Your task to perform on an android device: uninstall "VLC for Android" Image 0: 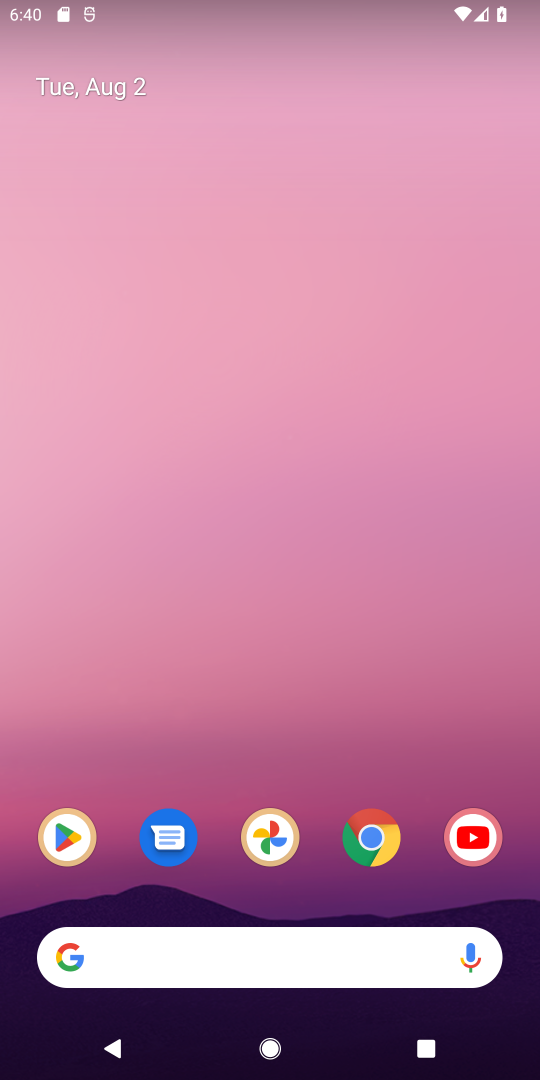
Step 0: click (63, 837)
Your task to perform on an android device: uninstall "VLC for Android" Image 1: 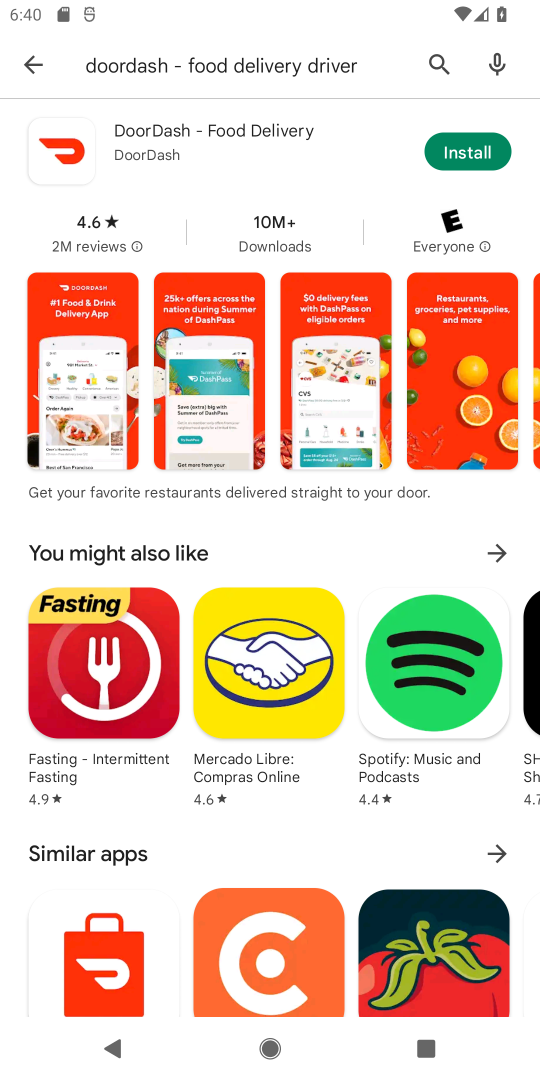
Step 1: click (438, 68)
Your task to perform on an android device: uninstall "VLC for Android" Image 2: 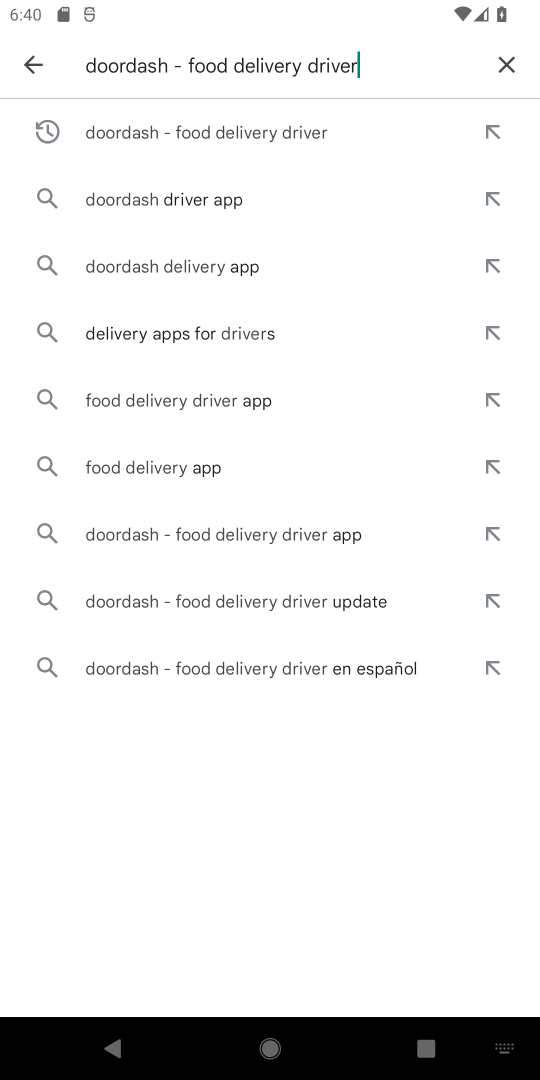
Step 2: click (502, 62)
Your task to perform on an android device: uninstall "VLC for Android" Image 3: 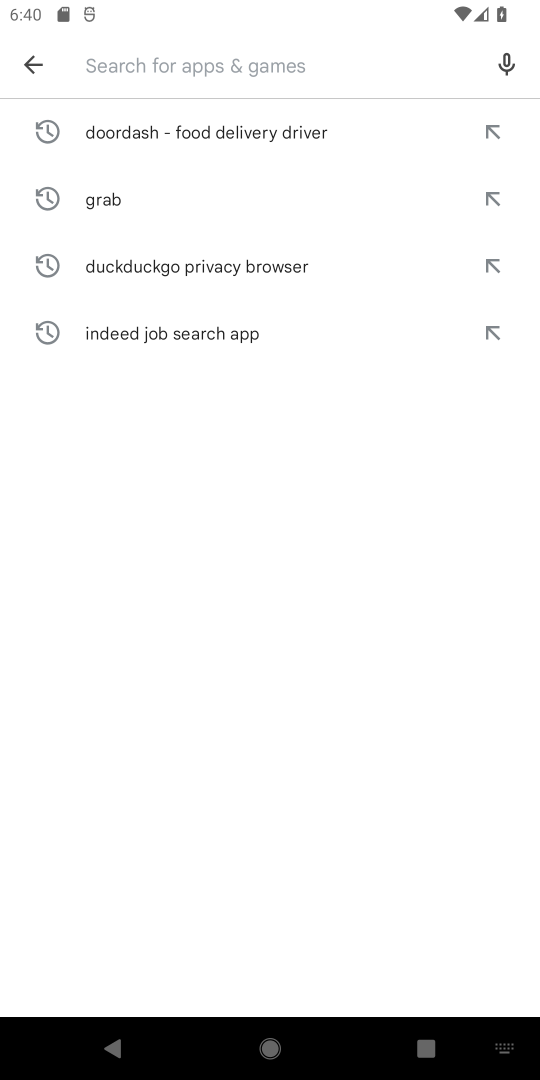
Step 3: type "VLC for Android"
Your task to perform on an android device: uninstall "VLC for Android" Image 4: 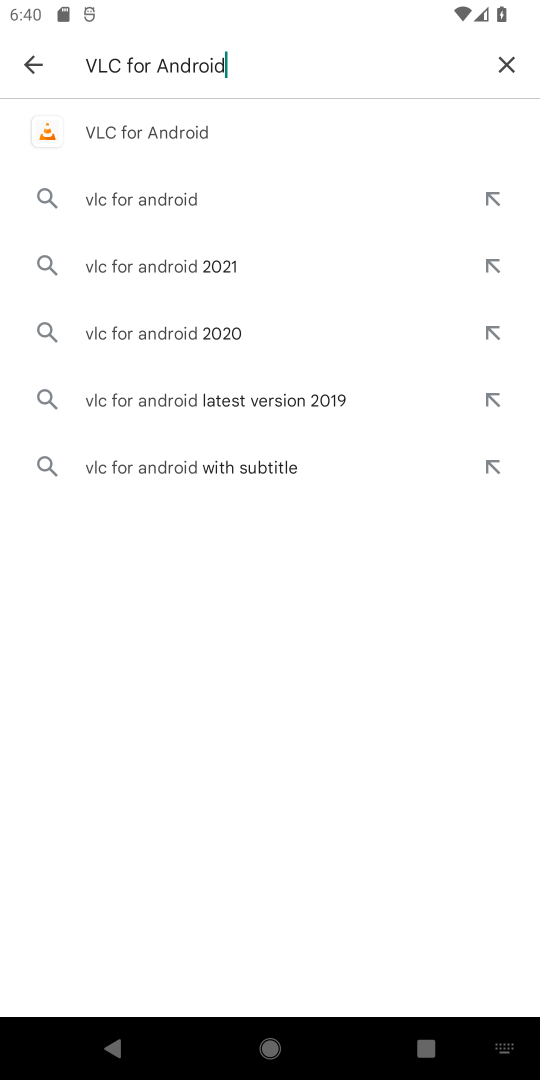
Step 4: click (121, 134)
Your task to perform on an android device: uninstall "VLC for Android" Image 5: 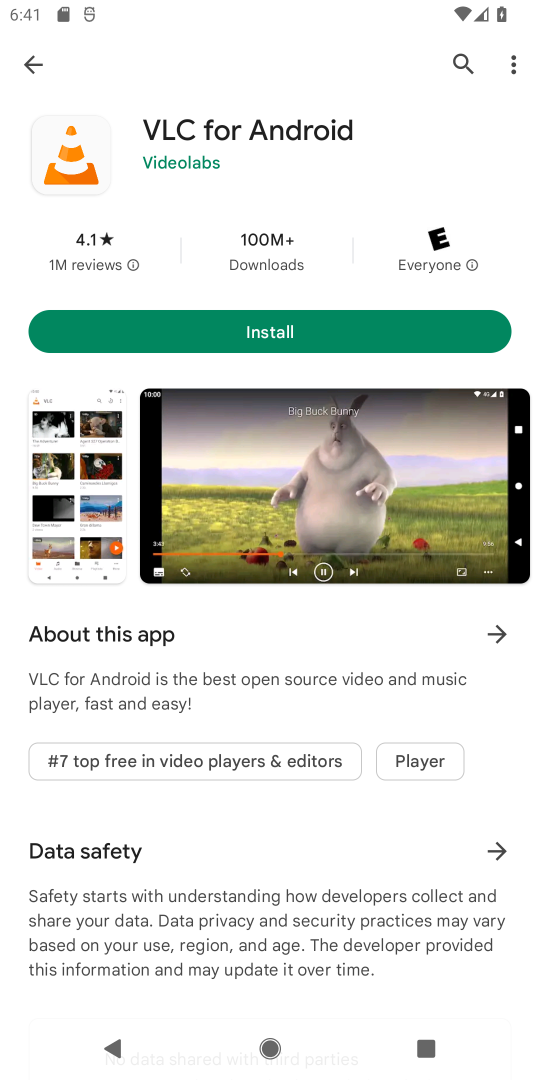
Step 5: task complete